Your task to perform on an android device: Open Google Maps and go to "Timeline" Image 0: 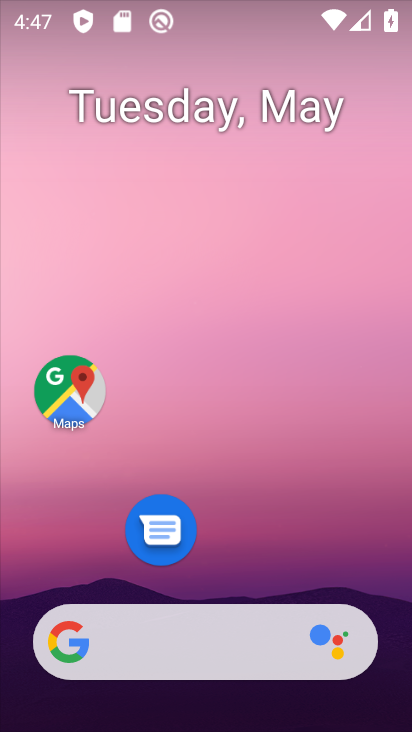
Step 0: click (94, 383)
Your task to perform on an android device: Open Google Maps and go to "Timeline" Image 1: 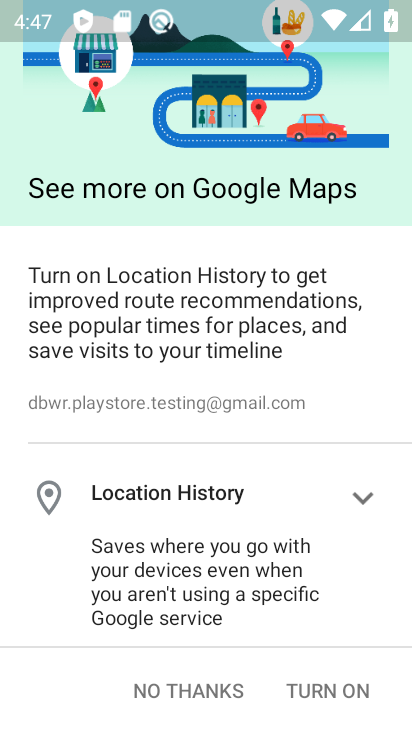
Step 1: click (196, 684)
Your task to perform on an android device: Open Google Maps and go to "Timeline" Image 2: 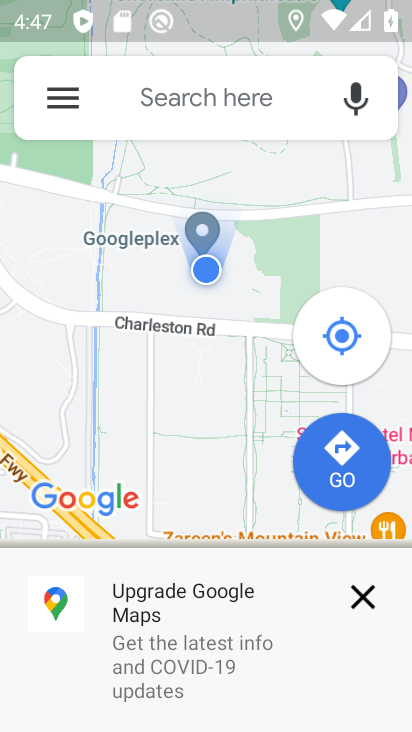
Step 2: click (69, 100)
Your task to perform on an android device: Open Google Maps and go to "Timeline" Image 3: 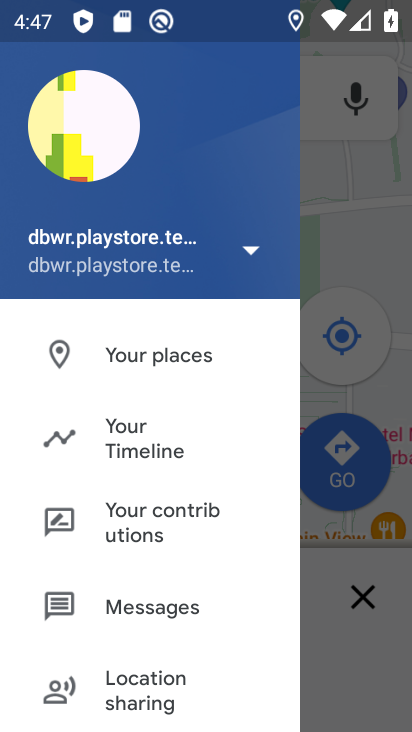
Step 3: click (175, 444)
Your task to perform on an android device: Open Google Maps and go to "Timeline" Image 4: 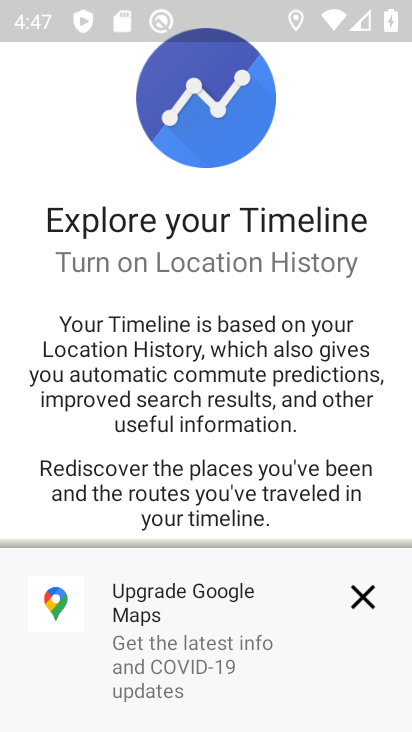
Step 4: click (356, 598)
Your task to perform on an android device: Open Google Maps and go to "Timeline" Image 5: 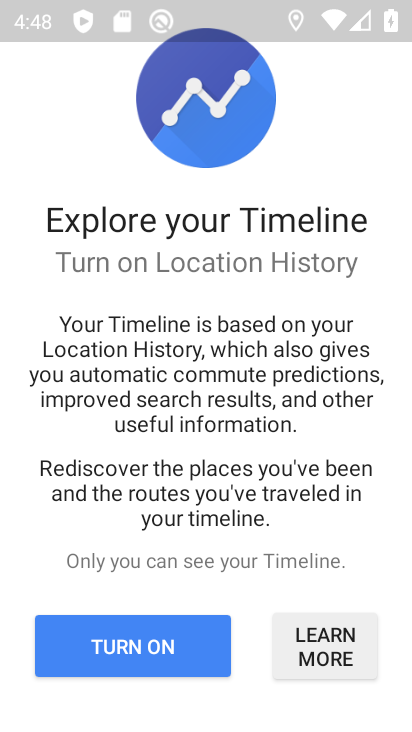
Step 5: task complete